Your task to perform on an android device: Add logitech g502 to the cart on ebay.com, then select checkout. Image 0: 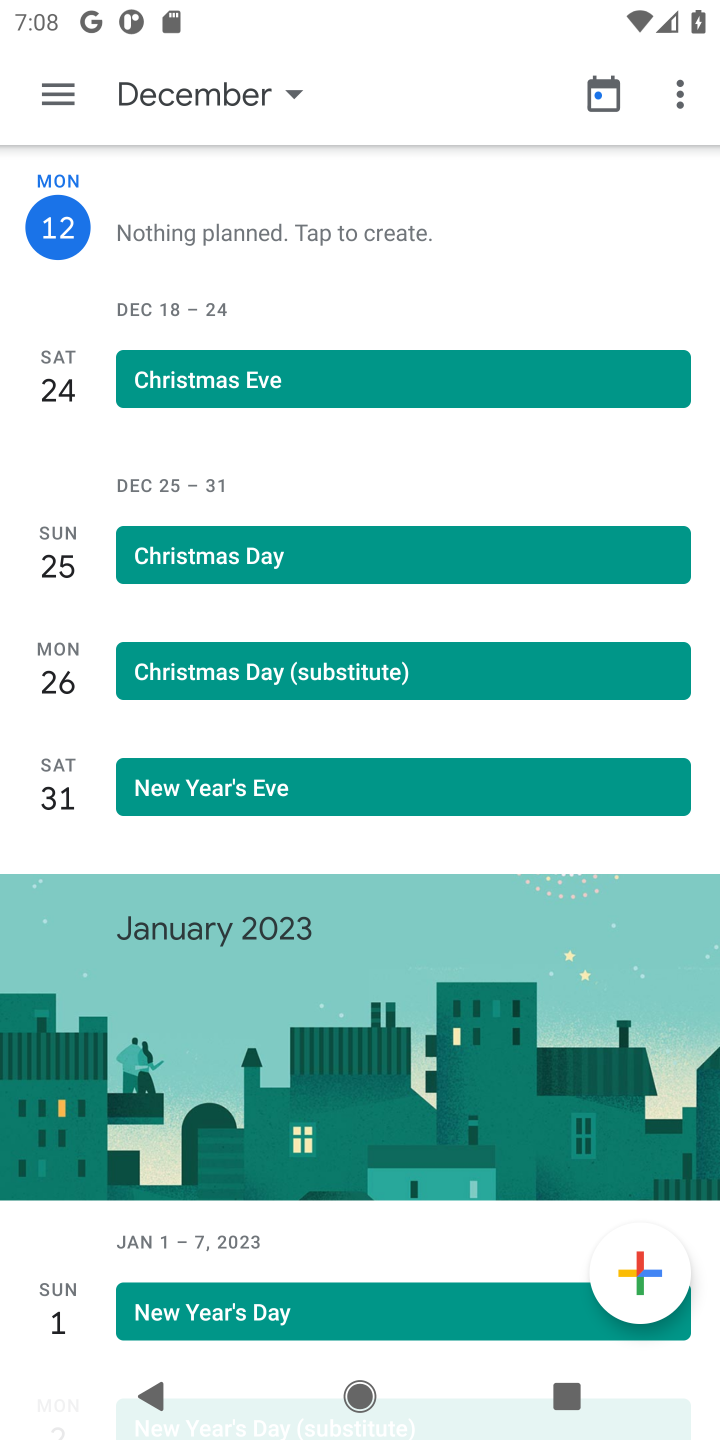
Step 0: press home button
Your task to perform on an android device: Add logitech g502 to the cart on ebay.com, then select checkout. Image 1: 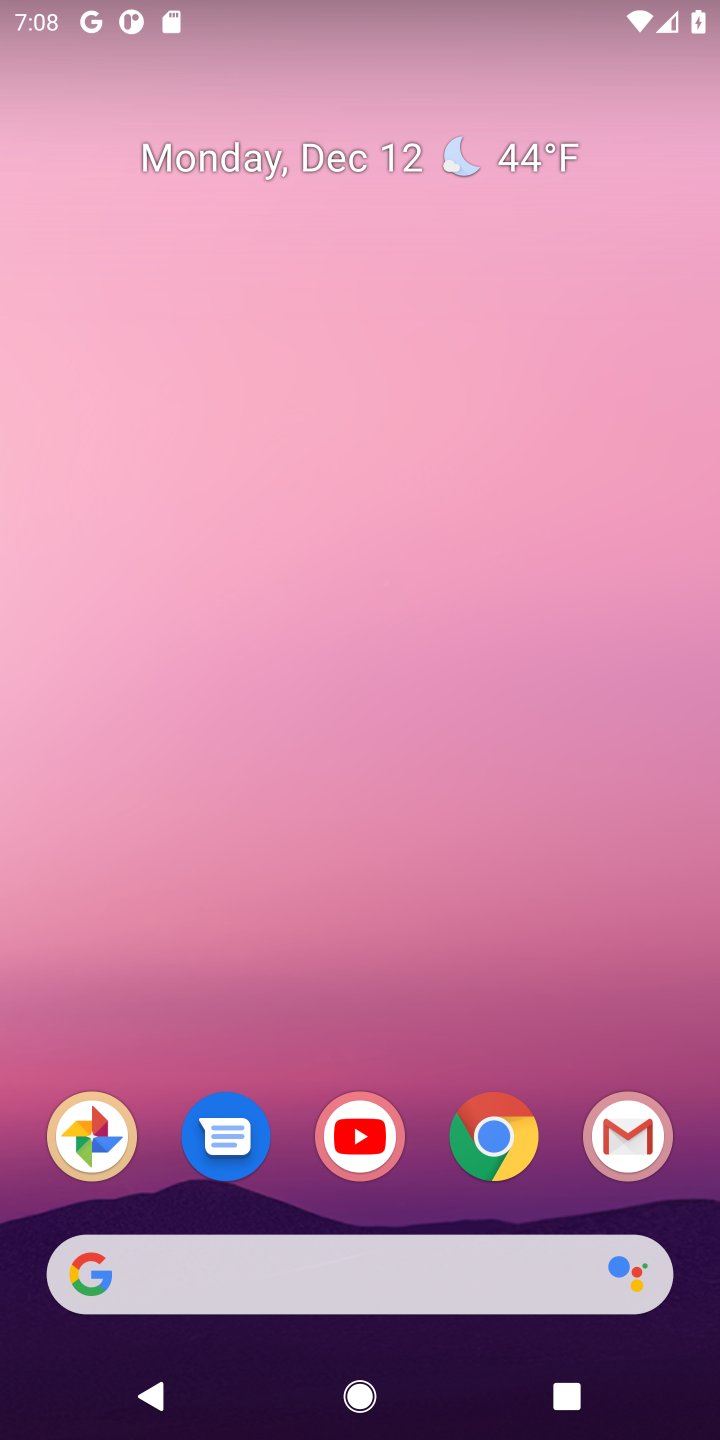
Step 1: click (504, 1141)
Your task to perform on an android device: Add logitech g502 to the cart on ebay.com, then select checkout. Image 2: 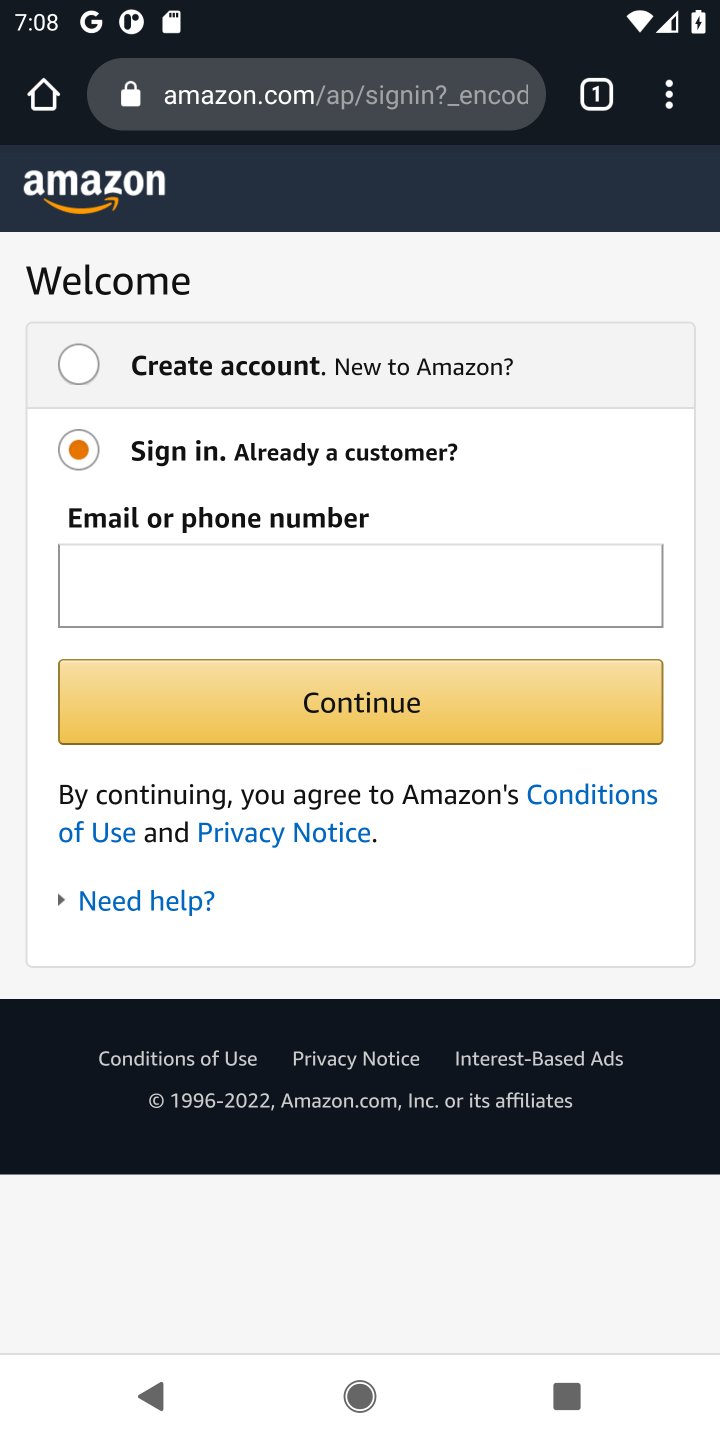
Step 2: click (250, 97)
Your task to perform on an android device: Add logitech g502 to the cart on ebay.com, then select checkout. Image 3: 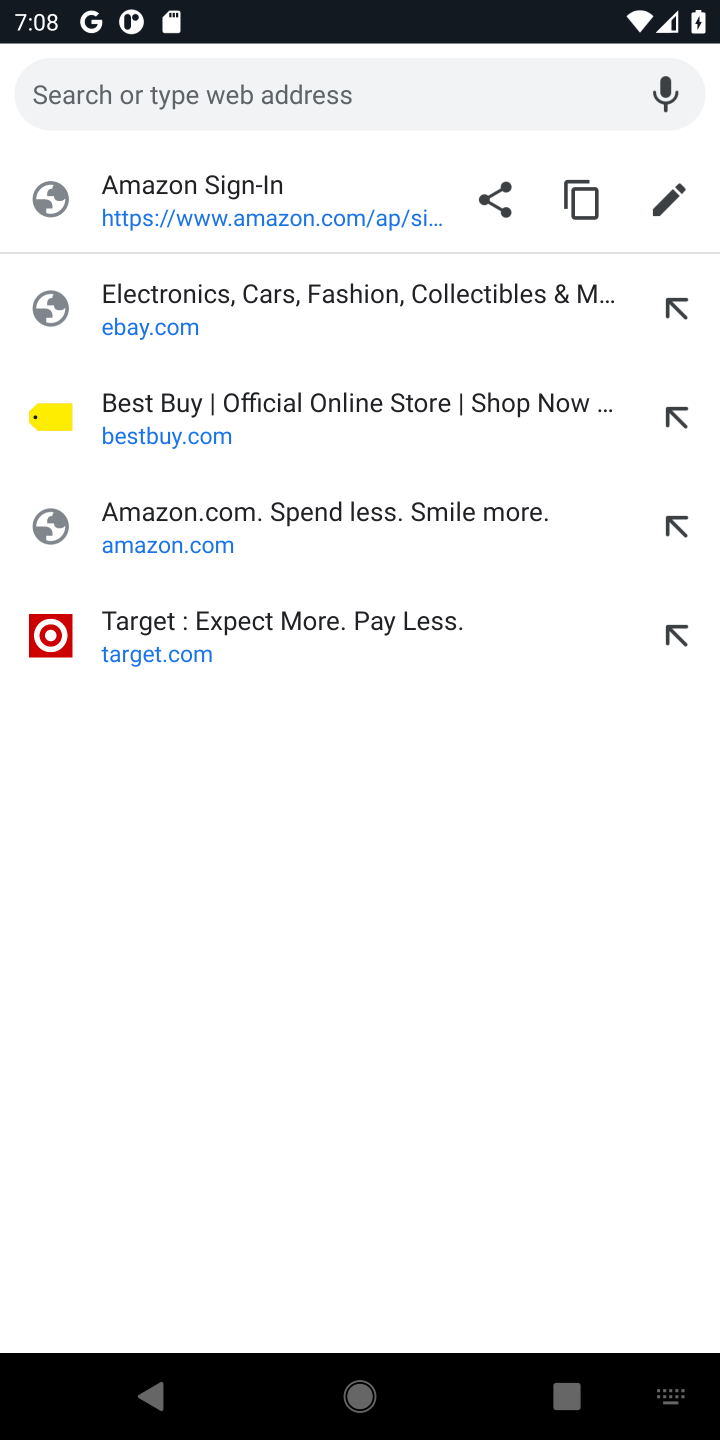
Step 3: click (157, 311)
Your task to perform on an android device: Add logitech g502 to the cart on ebay.com, then select checkout. Image 4: 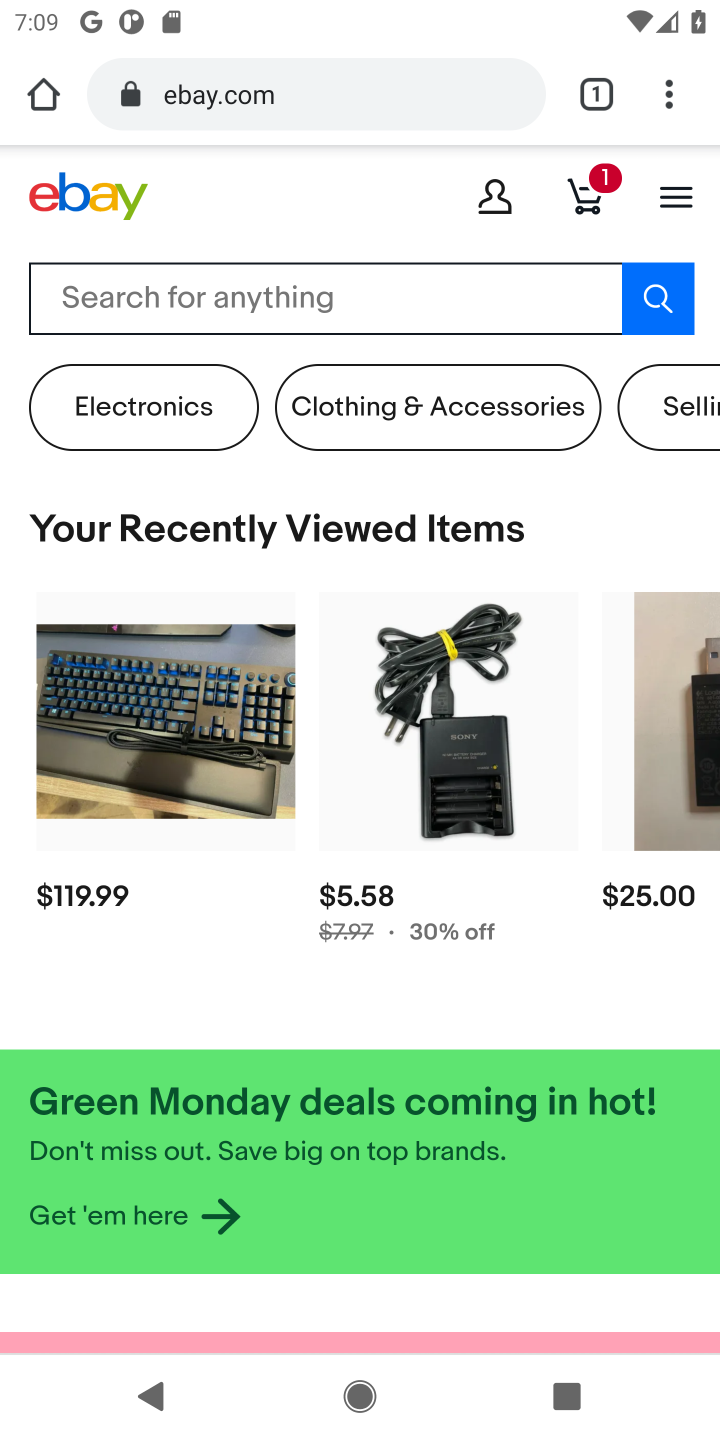
Step 4: click (127, 301)
Your task to perform on an android device: Add logitech g502 to the cart on ebay.com, then select checkout. Image 5: 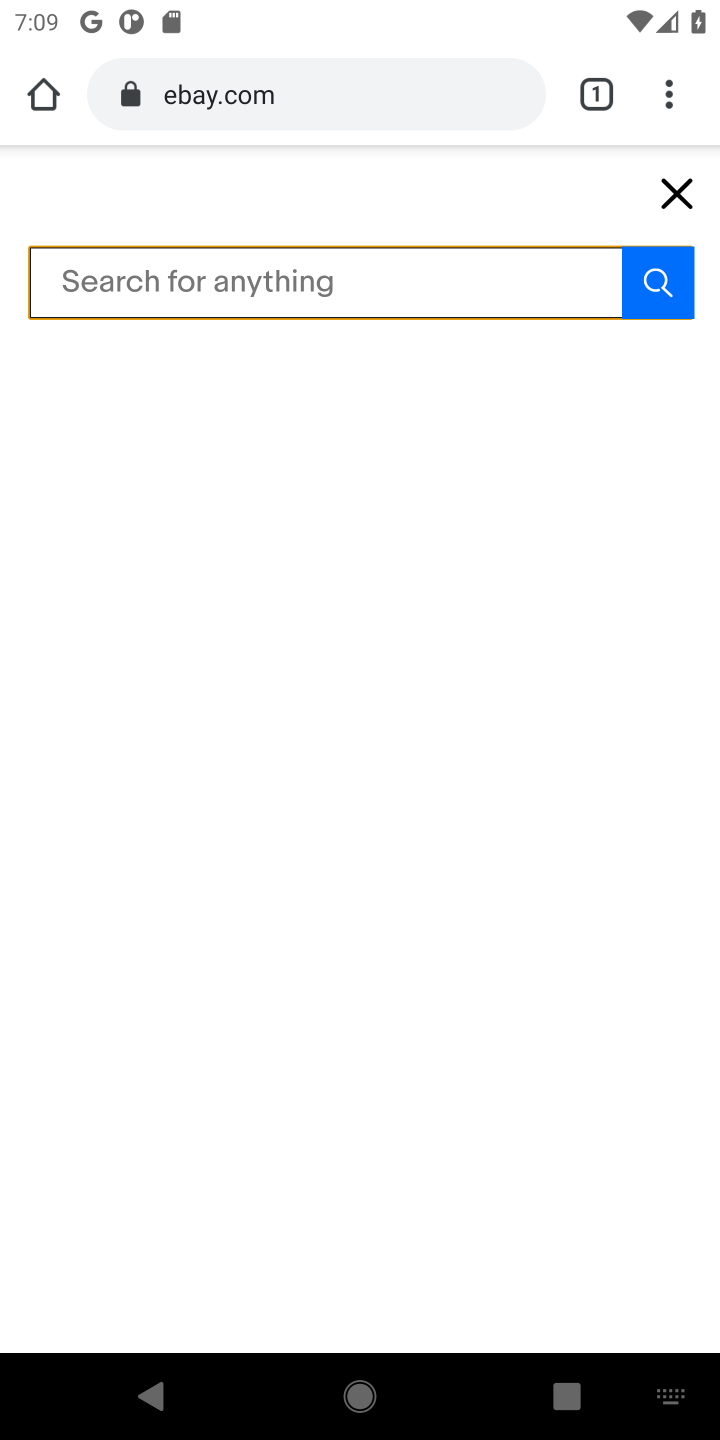
Step 5: type "logitech g502 "
Your task to perform on an android device: Add logitech g502 to the cart on ebay.com, then select checkout. Image 6: 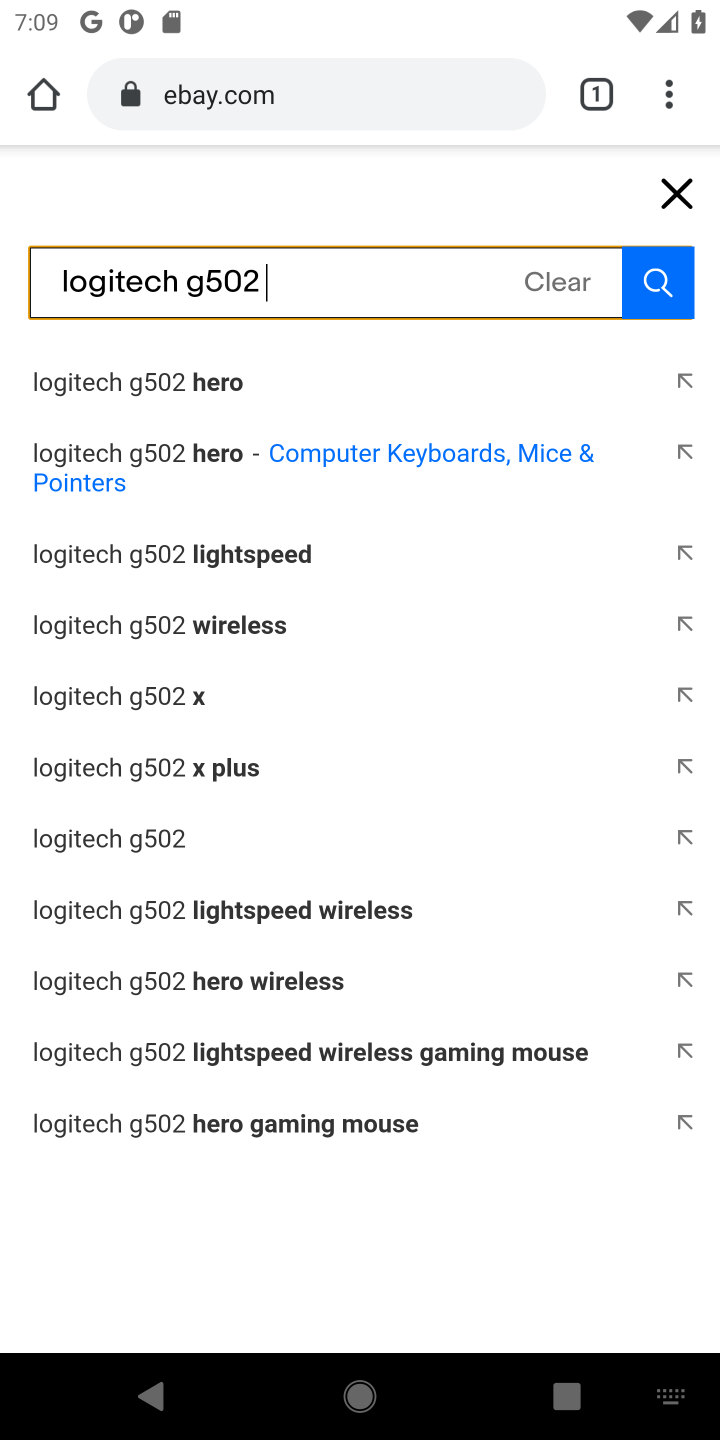
Step 6: click (159, 843)
Your task to perform on an android device: Add logitech g502 to the cart on ebay.com, then select checkout. Image 7: 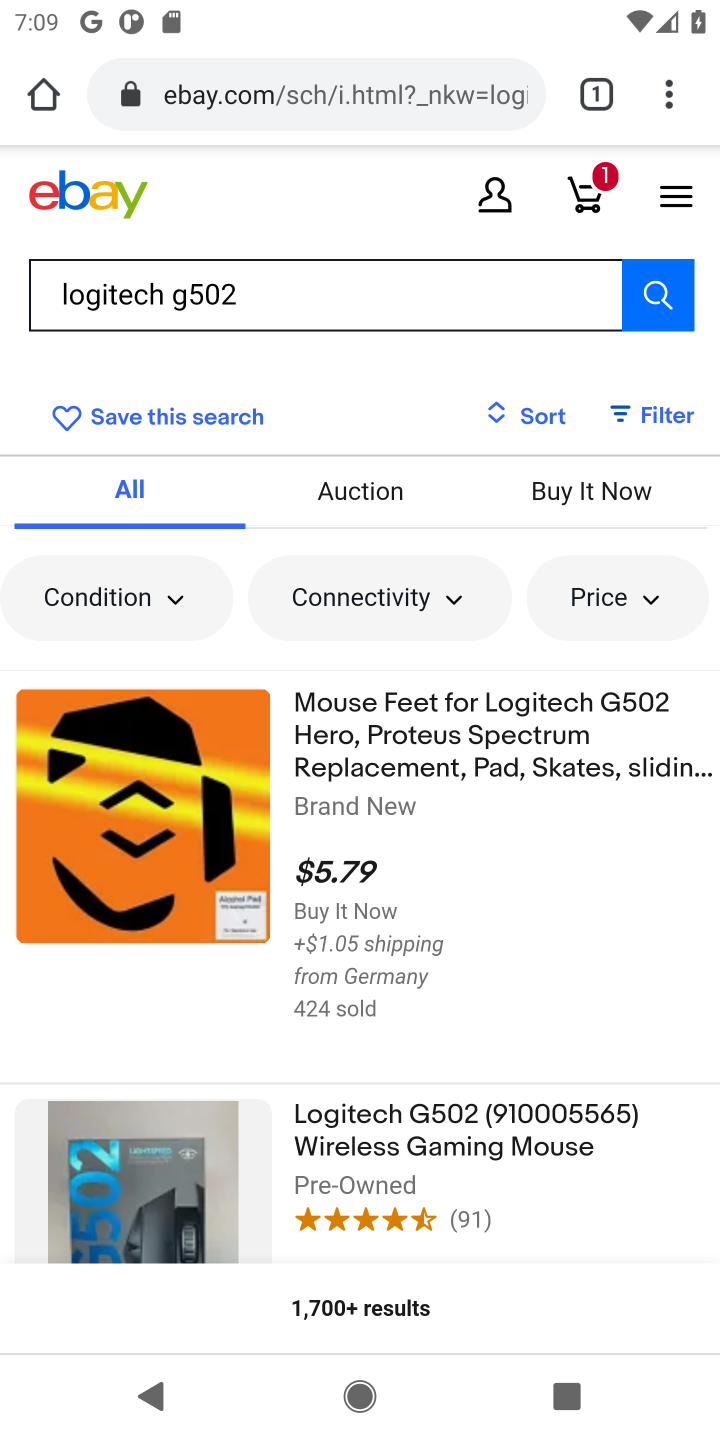
Step 7: click (402, 749)
Your task to perform on an android device: Add logitech g502 to the cart on ebay.com, then select checkout. Image 8: 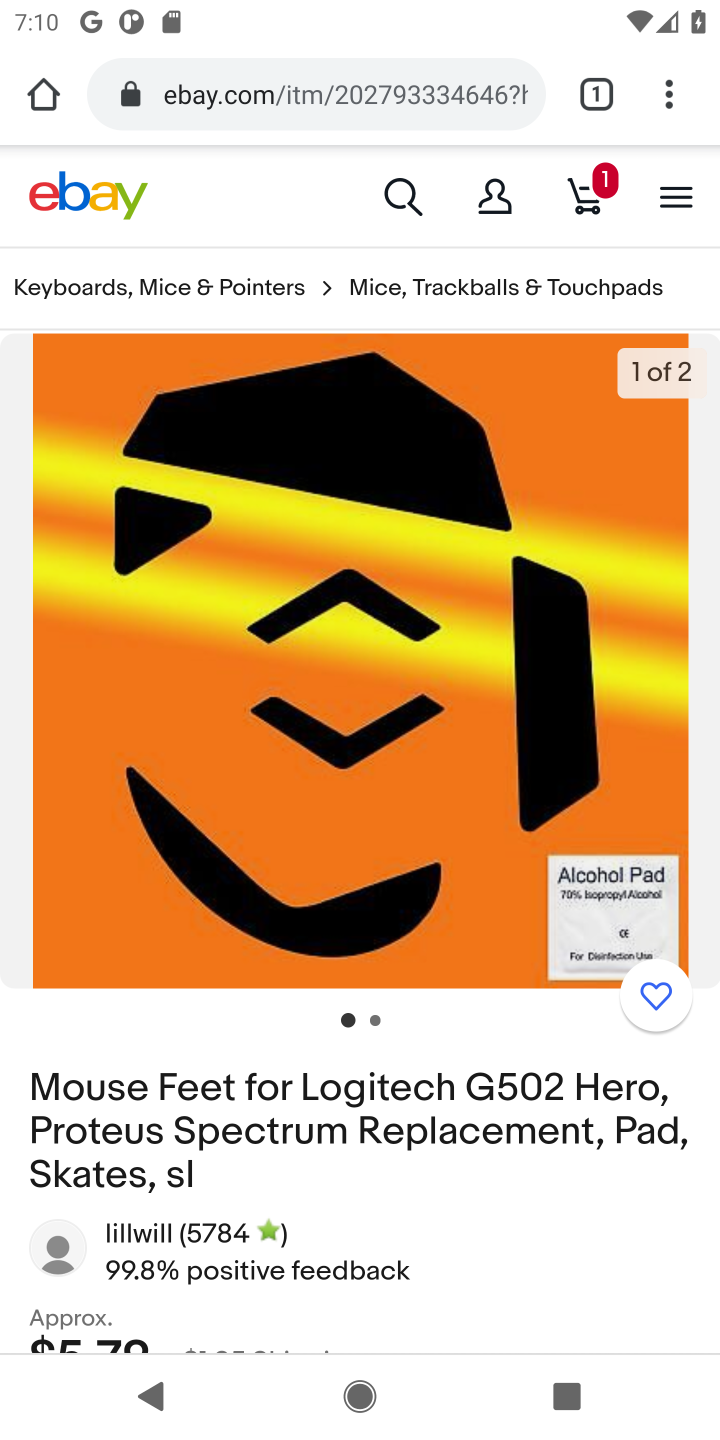
Step 8: drag from (458, 1063) to (369, 309)
Your task to perform on an android device: Add logitech g502 to the cart on ebay.com, then select checkout. Image 9: 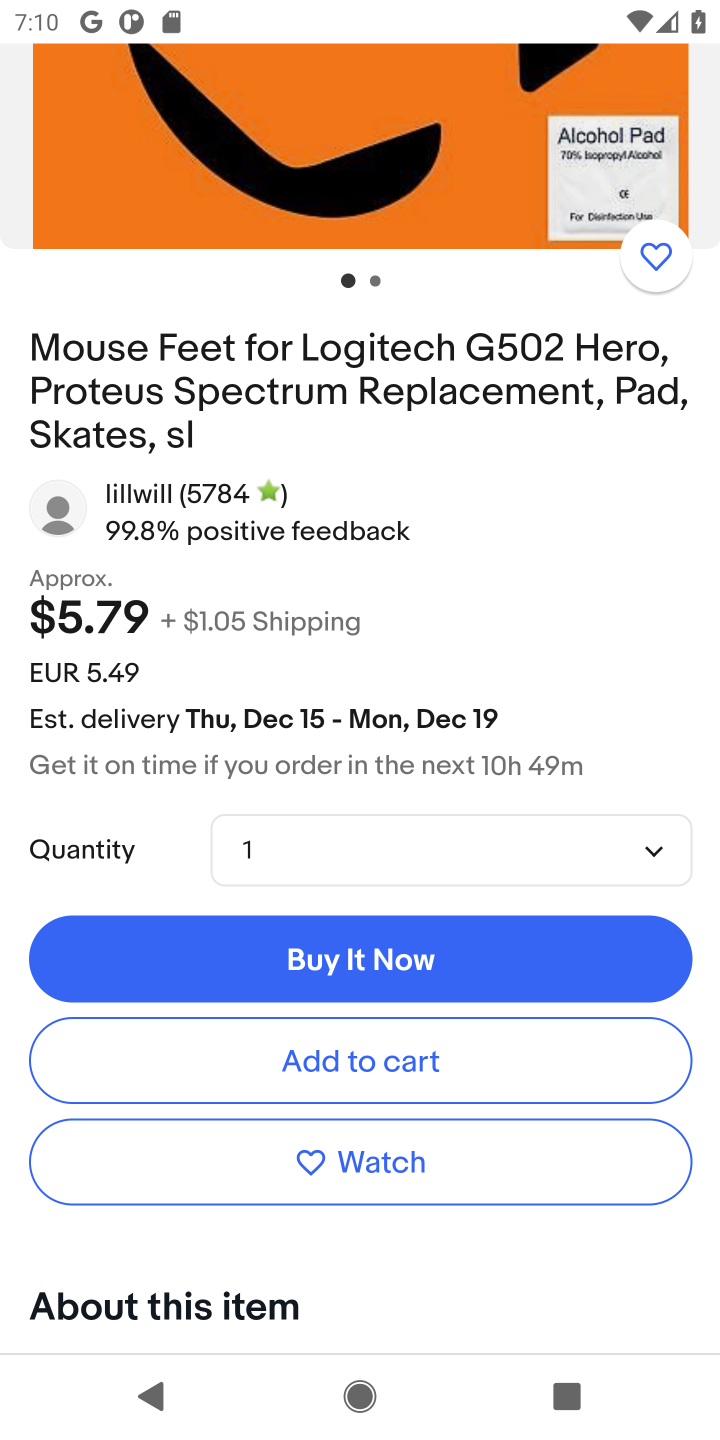
Step 9: click (352, 1051)
Your task to perform on an android device: Add logitech g502 to the cart on ebay.com, then select checkout. Image 10: 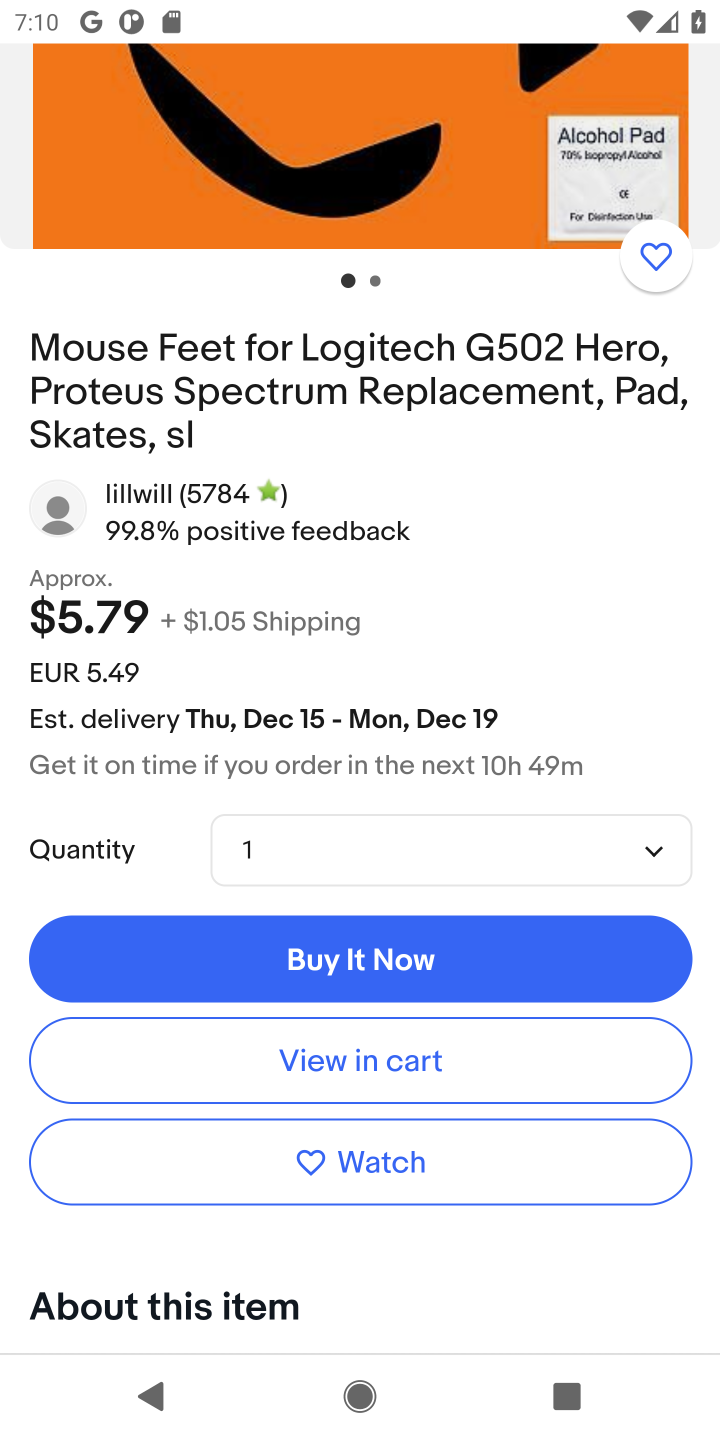
Step 10: click (352, 1056)
Your task to perform on an android device: Add logitech g502 to the cart on ebay.com, then select checkout. Image 11: 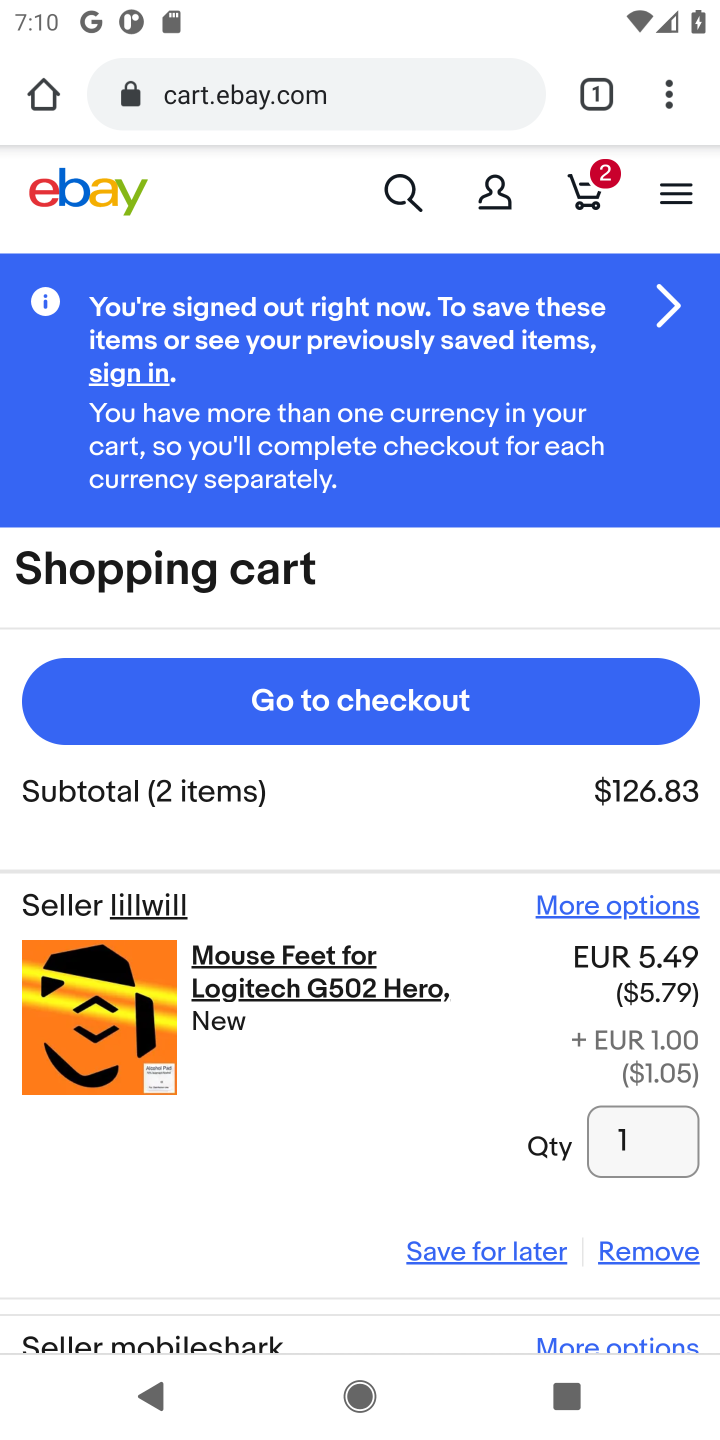
Step 11: click (300, 696)
Your task to perform on an android device: Add logitech g502 to the cart on ebay.com, then select checkout. Image 12: 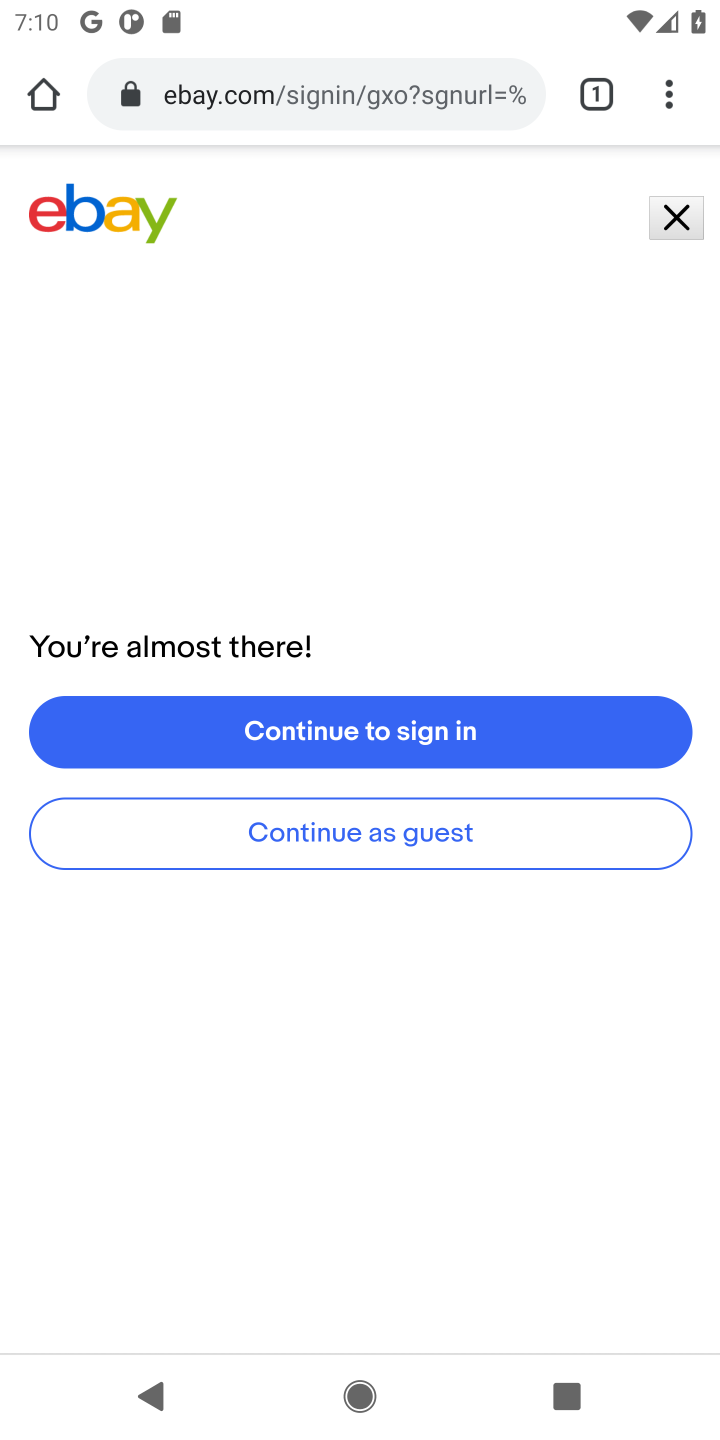
Step 12: task complete